Your task to perform on an android device: delete a single message in the gmail app Image 0: 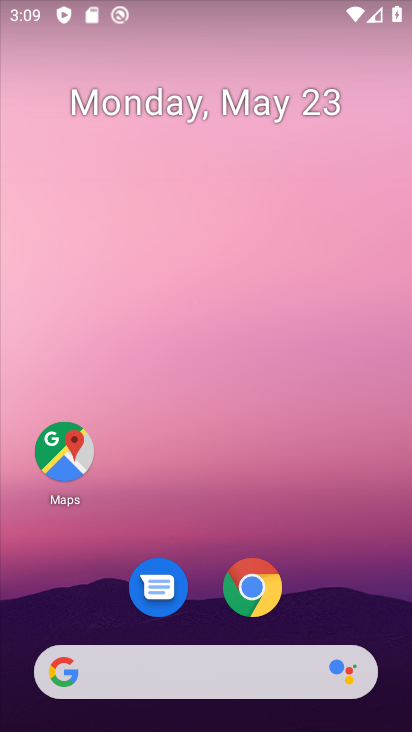
Step 0: press home button
Your task to perform on an android device: delete a single message in the gmail app Image 1: 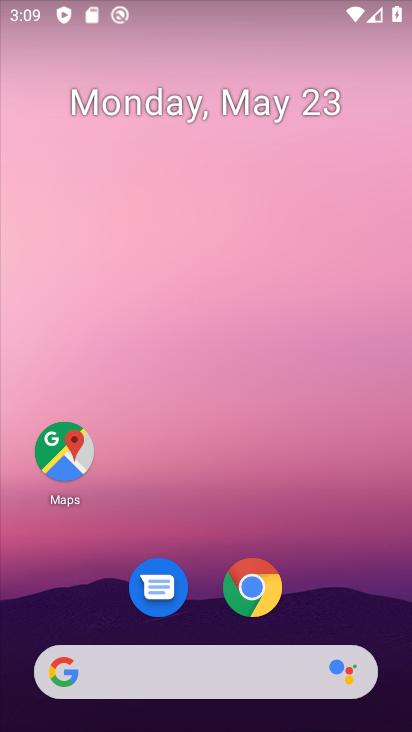
Step 1: drag from (201, 668) to (346, 108)
Your task to perform on an android device: delete a single message in the gmail app Image 2: 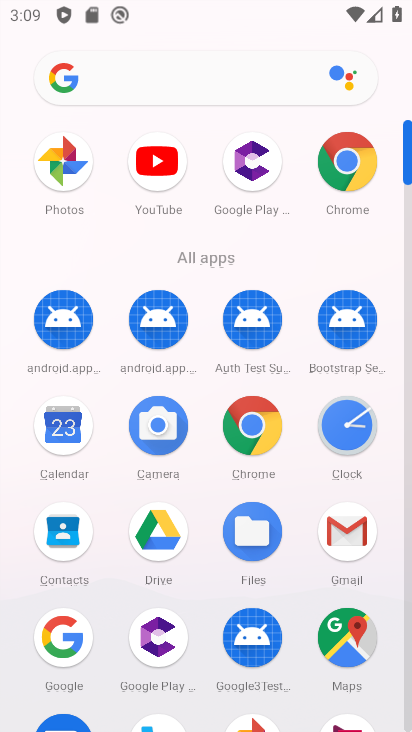
Step 2: click (336, 535)
Your task to perform on an android device: delete a single message in the gmail app Image 3: 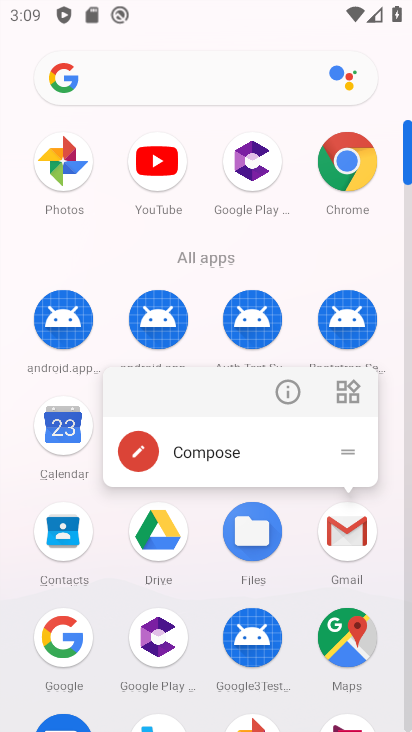
Step 3: click (345, 539)
Your task to perform on an android device: delete a single message in the gmail app Image 4: 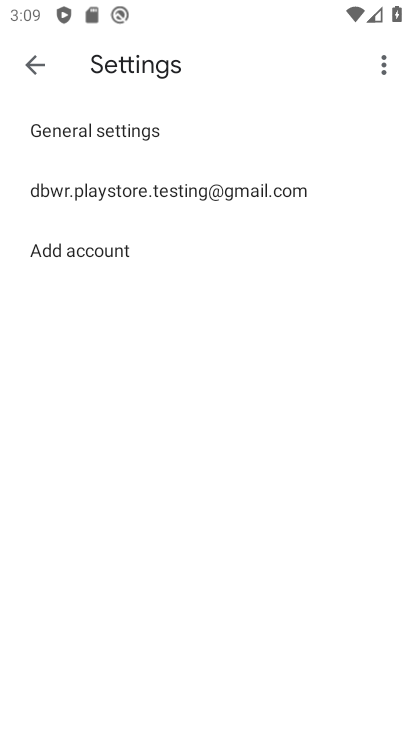
Step 4: click (36, 69)
Your task to perform on an android device: delete a single message in the gmail app Image 5: 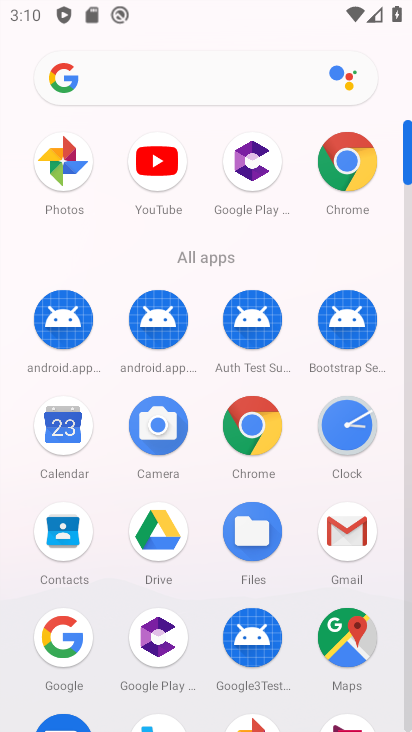
Step 5: click (345, 541)
Your task to perform on an android device: delete a single message in the gmail app Image 6: 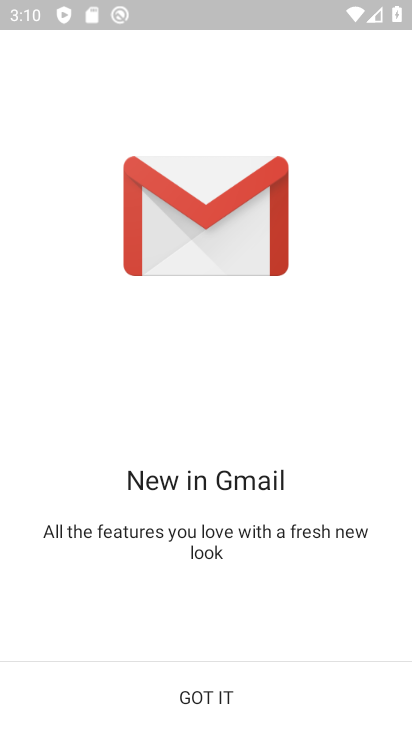
Step 6: click (197, 691)
Your task to perform on an android device: delete a single message in the gmail app Image 7: 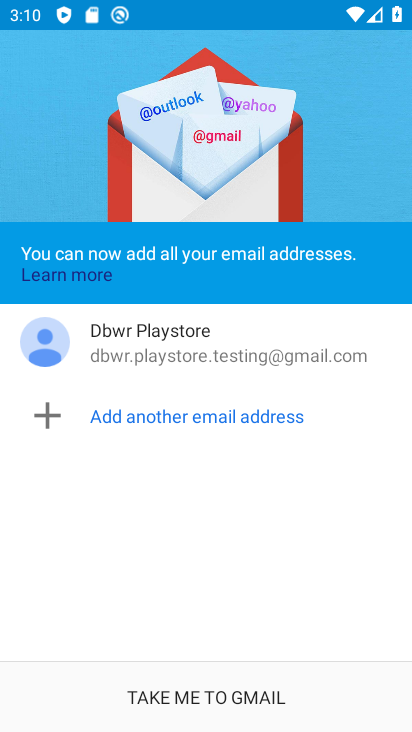
Step 7: click (197, 691)
Your task to perform on an android device: delete a single message in the gmail app Image 8: 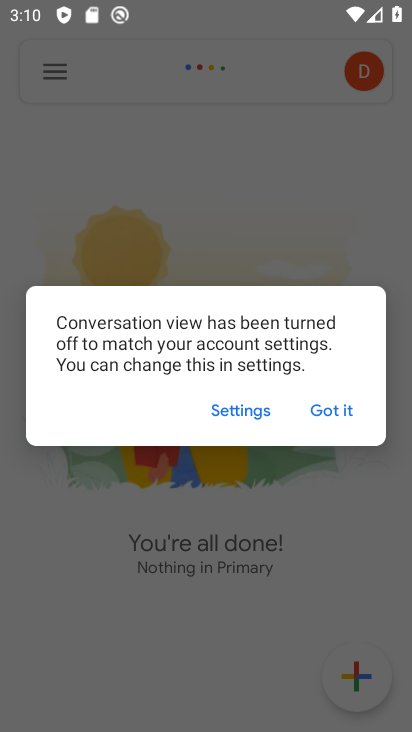
Step 8: click (333, 423)
Your task to perform on an android device: delete a single message in the gmail app Image 9: 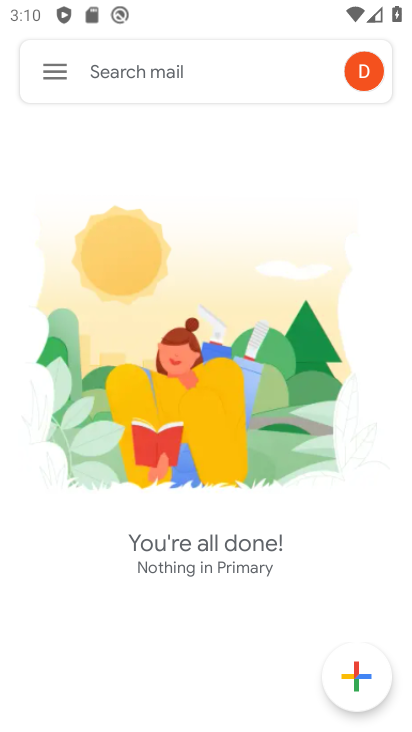
Step 9: task complete